Your task to perform on an android device: Open calendar and show me the third week of next month Image 0: 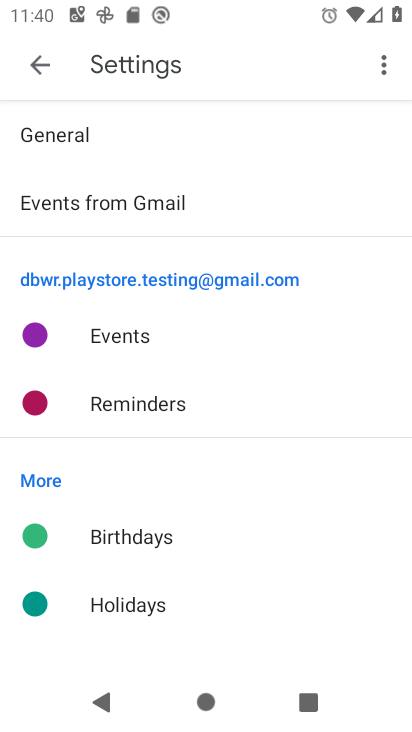
Step 0: press home button
Your task to perform on an android device: Open calendar and show me the third week of next month Image 1: 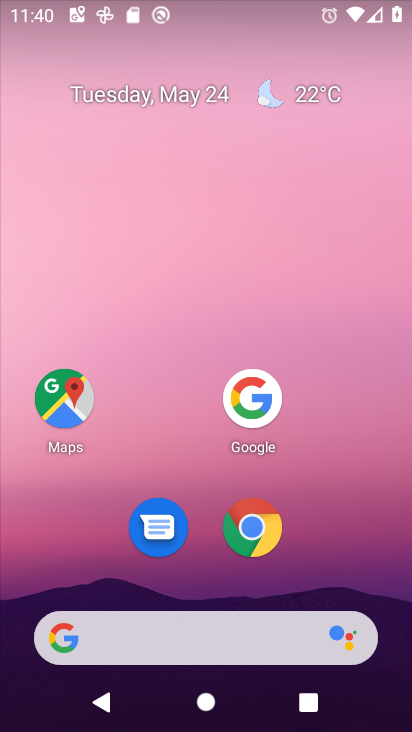
Step 1: drag from (143, 633) to (258, 133)
Your task to perform on an android device: Open calendar and show me the third week of next month Image 2: 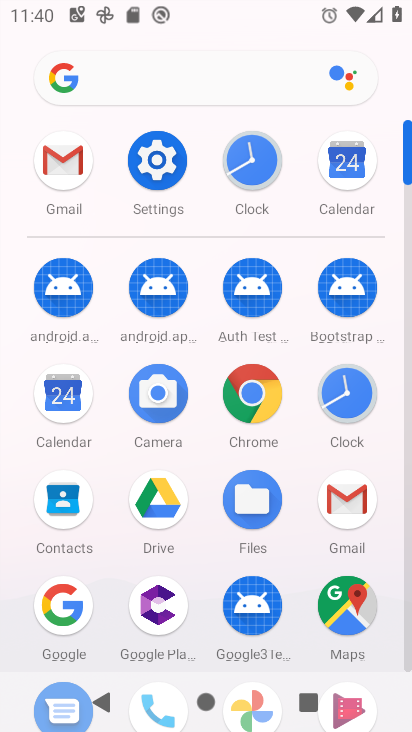
Step 2: drag from (238, 630) to (251, 117)
Your task to perform on an android device: Open calendar and show me the third week of next month Image 3: 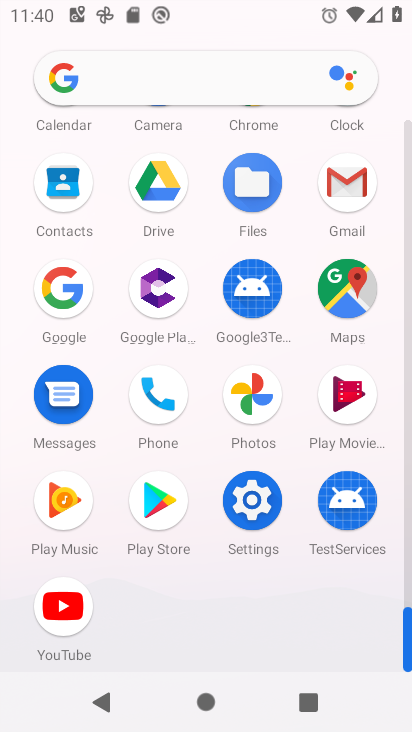
Step 3: drag from (270, 162) to (166, 498)
Your task to perform on an android device: Open calendar and show me the third week of next month Image 4: 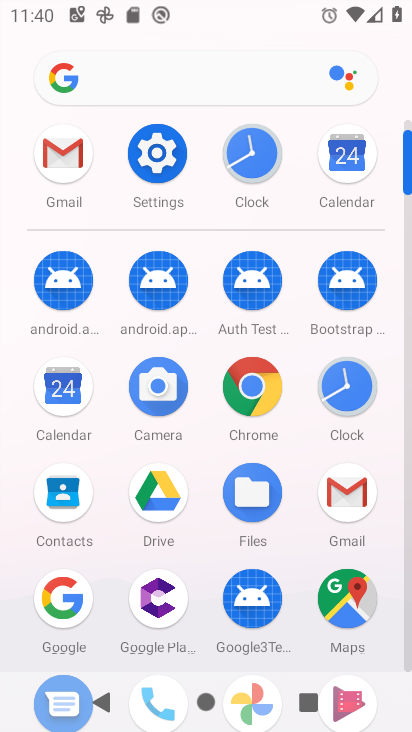
Step 4: click (56, 392)
Your task to perform on an android device: Open calendar and show me the third week of next month Image 5: 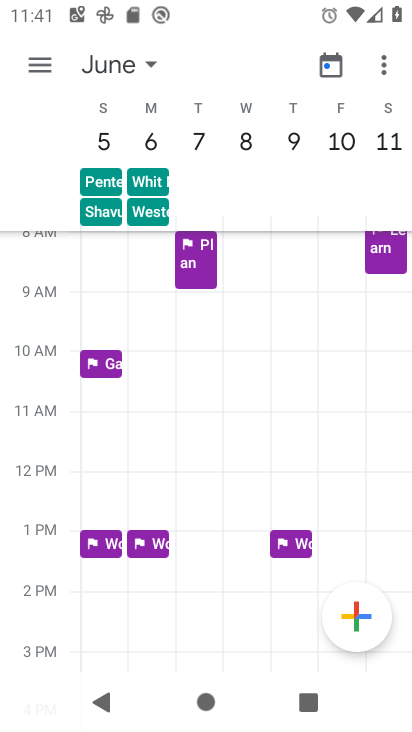
Step 5: task complete